Your task to perform on an android device: find photos in the google photos app Image 0: 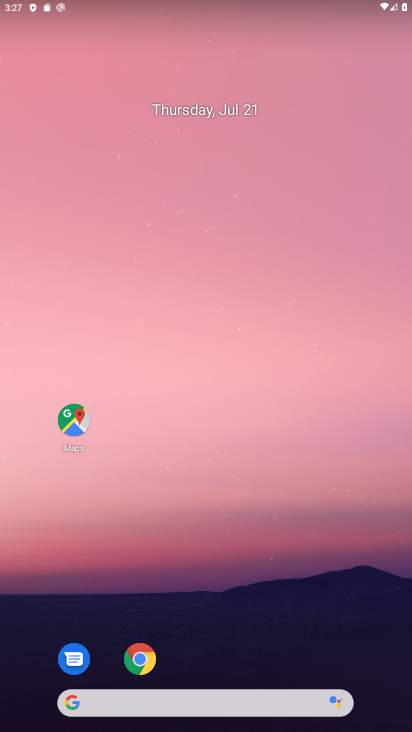
Step 0: drag from (248, 646) to (190, 275)
Your task to perform on an android device: find photos in the google photos app Image 1: 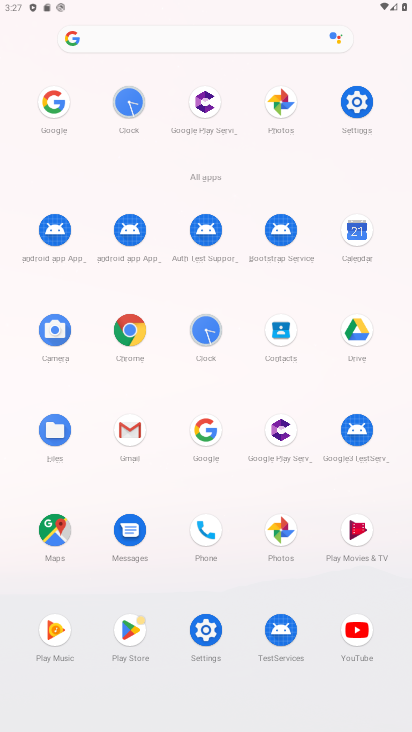
Step 1: click (283, 530)
Your task to perform on an android device: find photos in the google photos app Image 2: 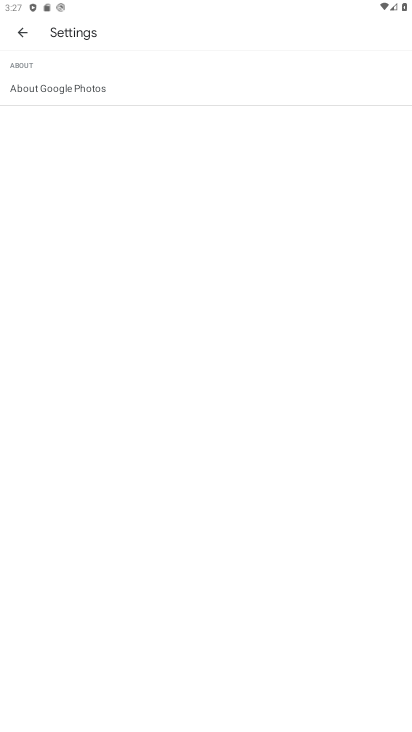
Step 2: click (20, 35)
Your task to perform on an android device: find photos in the google photos app Image 3: 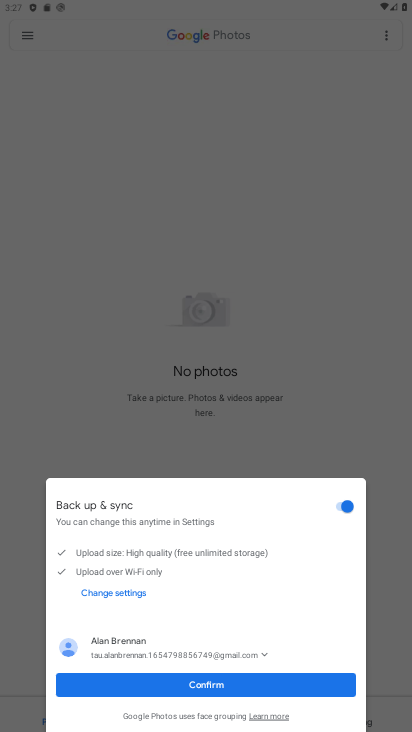
Step 3: click (209, 685)
Your task to perform on an android device: find photos in the google photos app Image 4: 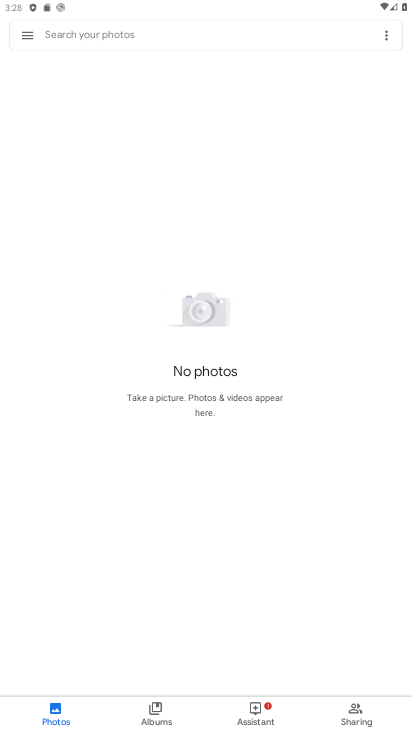
Step 4: click (95, 32)
Your task to perform on an android device: find photos in the google photos app Image 5: 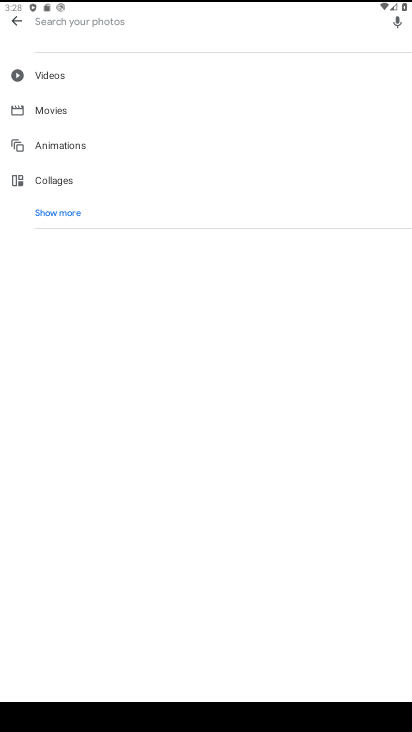
Step 5: task complete